Your task to perform on an android device: Show me the alarms in the clock app Image 0: 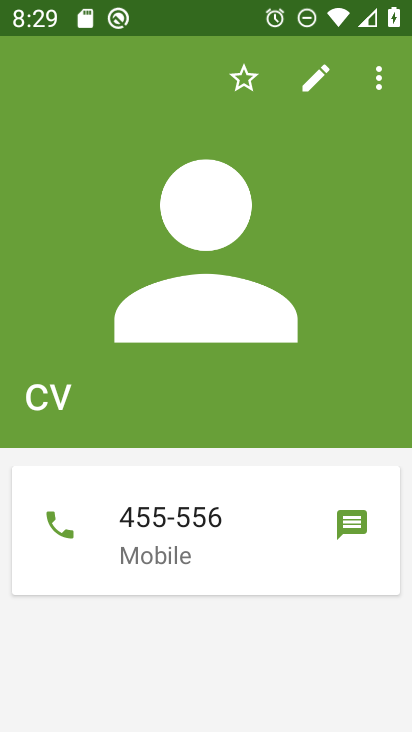
Step 0: press home button
Your task to perform on an android device: Show me the alarms in the clock app Image 1: 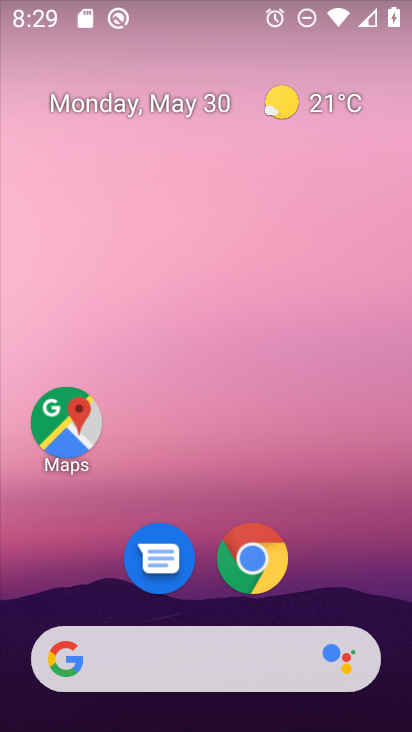
Step 1: drag from (293, 478) to (214, 19)
Your task to perform on an android device: Show me the alarms in the clock app Image 2: 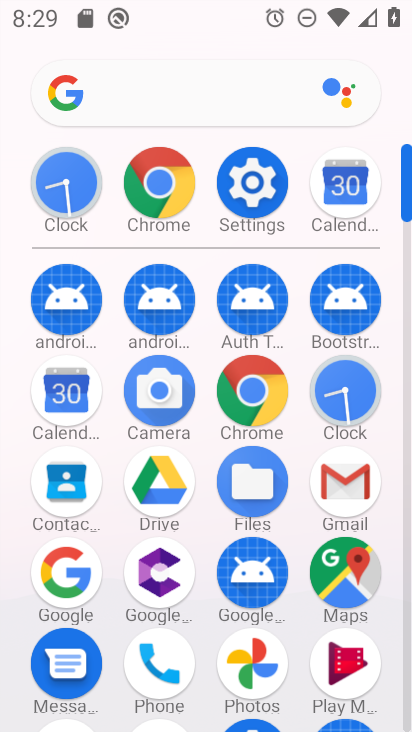
Step 2: click (338, 400)
Your task to perform on an android device: Show me the alarms in the clock app Image 3: 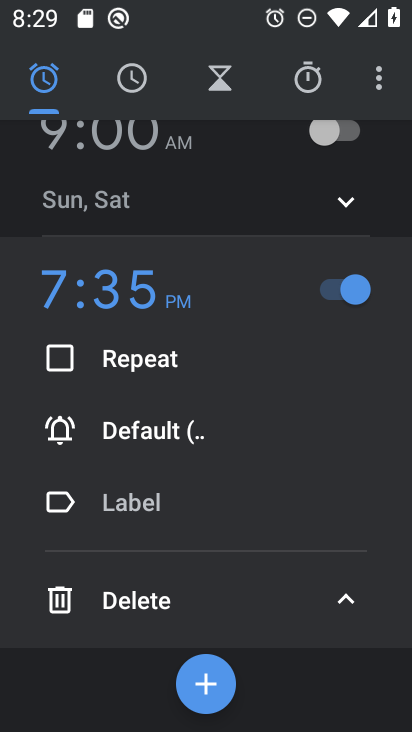
Step 3: click (215, 677)
Your task to perform on an android device: Show me the alarms in the clock app Image 4: 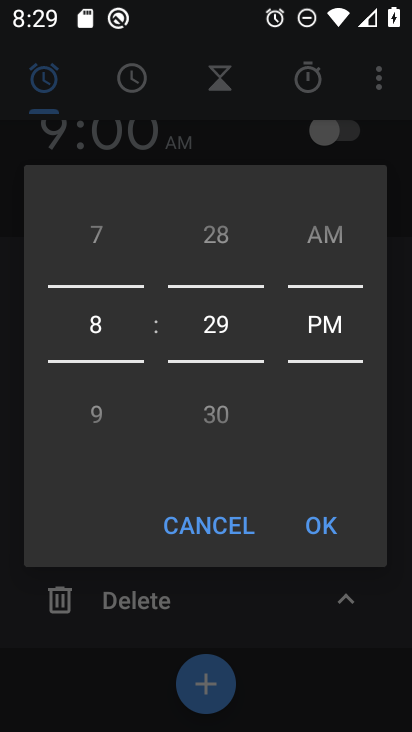
Step 4: click (318, 513)
Your task to perform on an android device: Show me the alarms in the clock app Image 5: 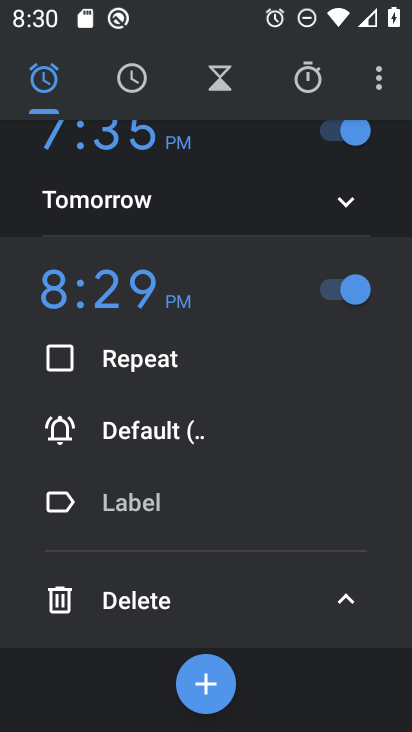
Step 5: task complete